Your task to perform on an android device: change the clock display to analog Image 0: 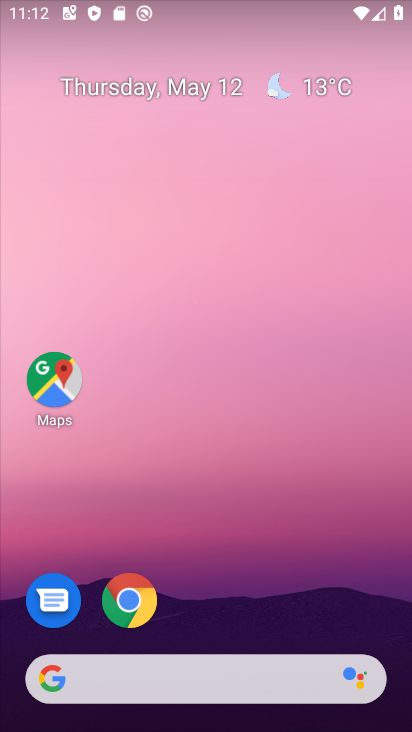
Step 0: drag from (382, 623) to (287, 27)
Your task to perform on an android device: change the clock display to analog Image 1: 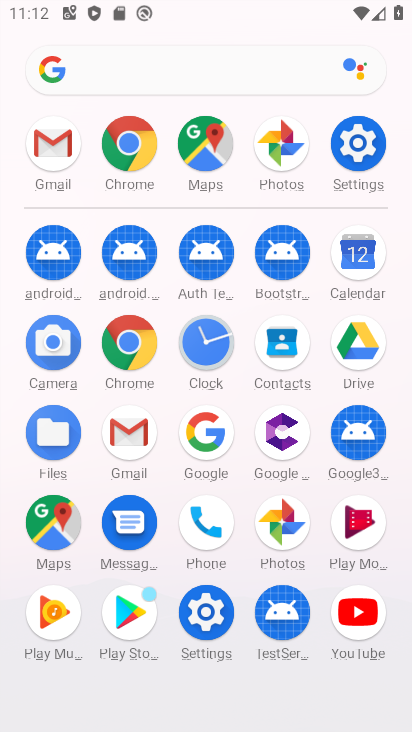
Step 1: click (200, 334)
Your task to perform on an android device: change the clock display to analog Image 2: 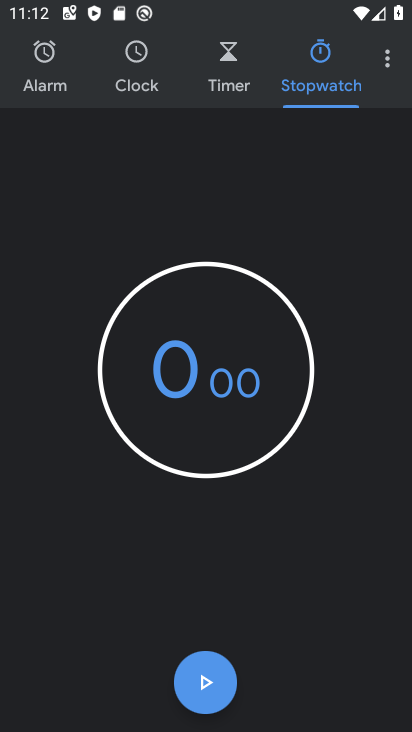
Step 2: click (381, 58)
Your task to perform on an android device: change the clock display to analog Image 3: 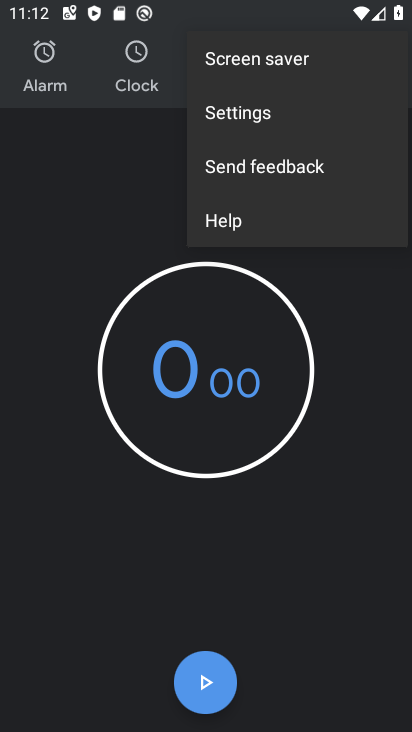
Step 3: click (245, 111)
Your task to perform on an android device: change the clock display to analog Image 4: 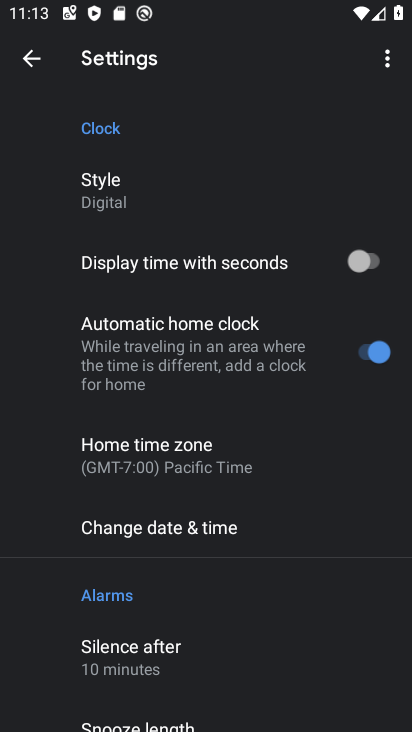
Step 4: click (105, 181)
Your task to perform on an android device: change the clock display to analog Image 5: 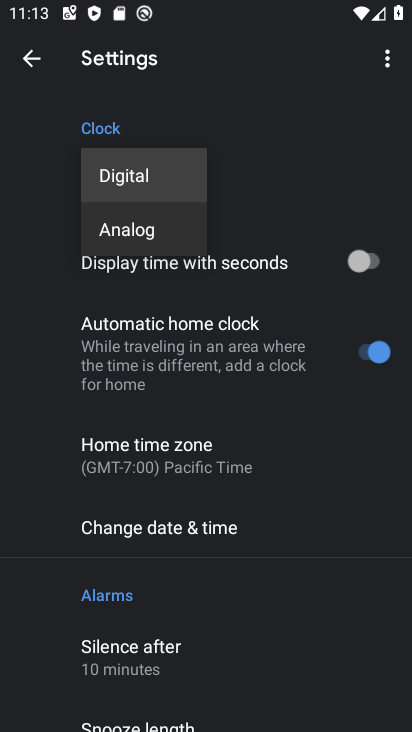
Step 5: click (143, 232)
Your task to perform on an android device: change the clock display to analog Image 6: 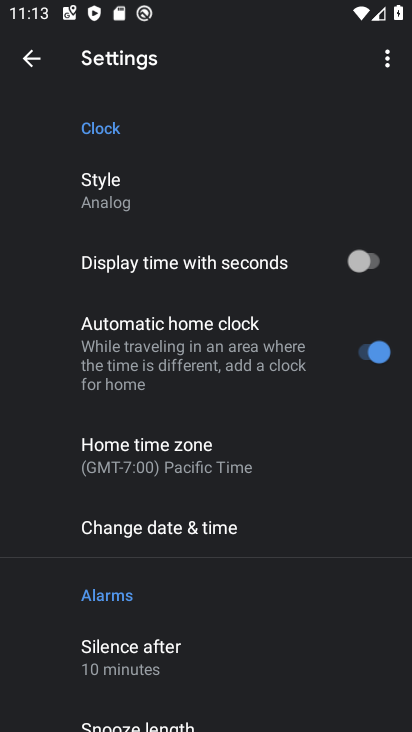
Step 6: task complete